Your task to perform on an android device: turn on showing notifications on the lock screen Image 0: 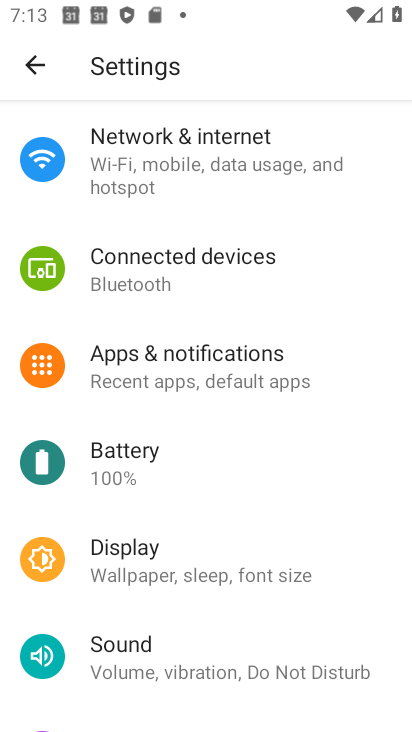
Step 0: press home button
Your task to perform on an android device: turn on showing notifications on the lock screen Image 1: 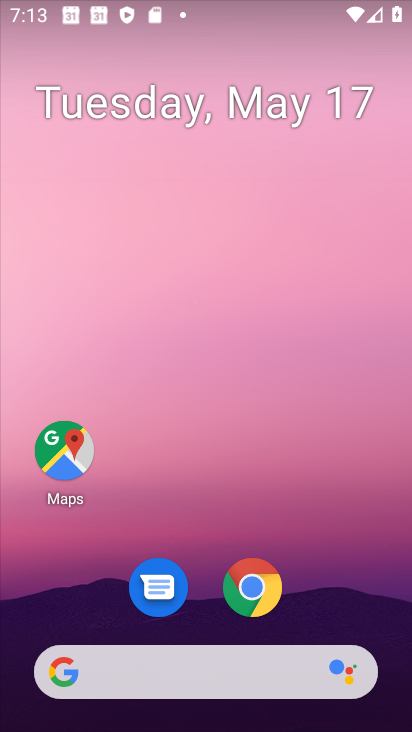
Step 1: drag from (220, 711) to (218, 348)
Your task to perform on an android device: turn on showing notifications on the lock screen Image 2: 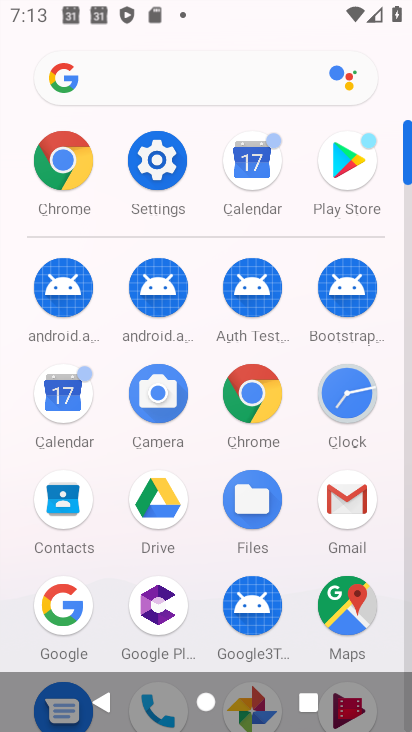
Step 2: click (143, 163)
Your task to perform on an android device: turn on showing notifications on the lock screen Image 3: 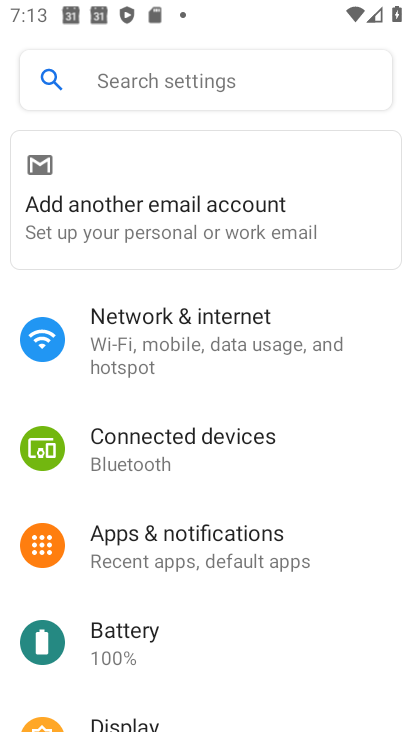
Step 3: click (129, 79)
Your task to perform on an android device: turn on showing notifications on the lock screen Image 4: 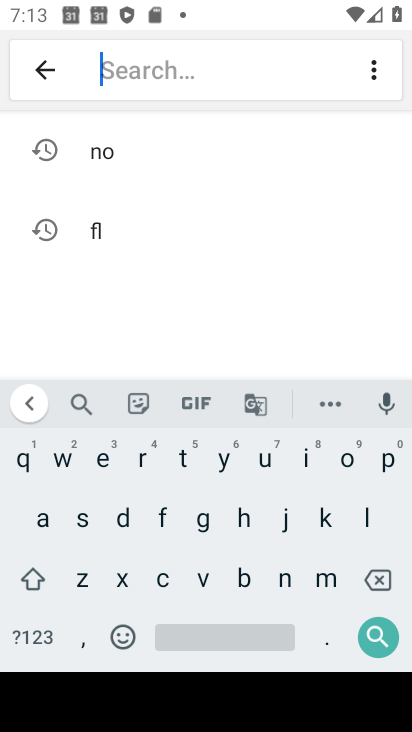
Step 4: click (281, 578)
Your task to perform on an android device: turn on showing notifications on the lock screen Image 5: 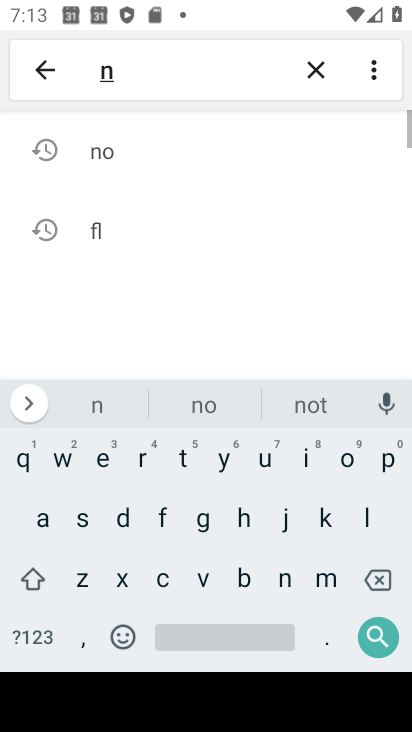
Step 5: click (341, 462)
Your task to perform on an android device: turn on showing notifications on the lock screen Image 6: 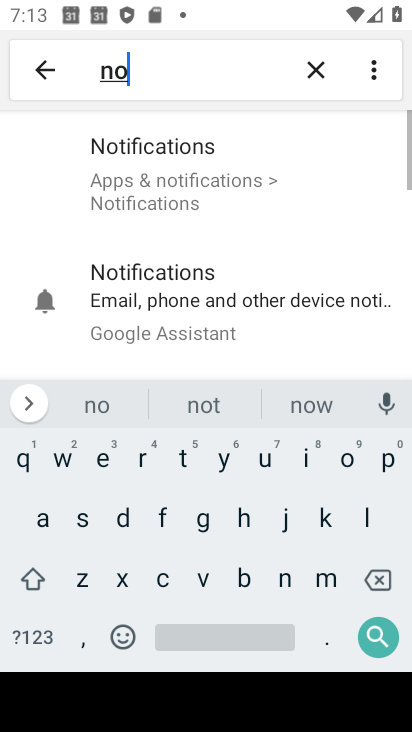
Step 6: click (156, 181)
Your task to perform on an android device: turn on showing notifications on the lock screen Image 7: 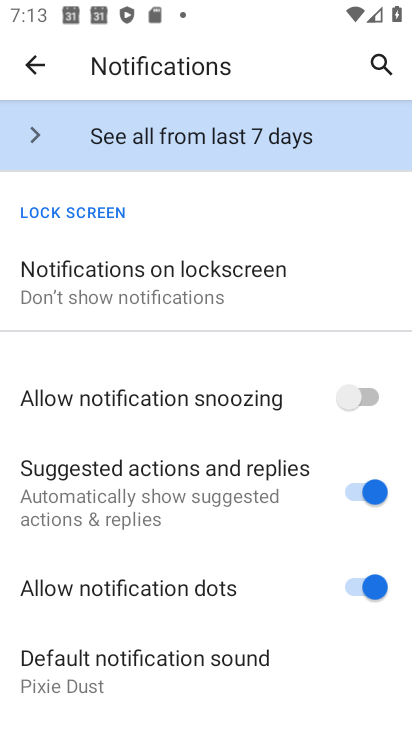
Step 7: click (134, 303)
Your task to perform on an android device: turn on showing notifications on the lock screen Image 8: 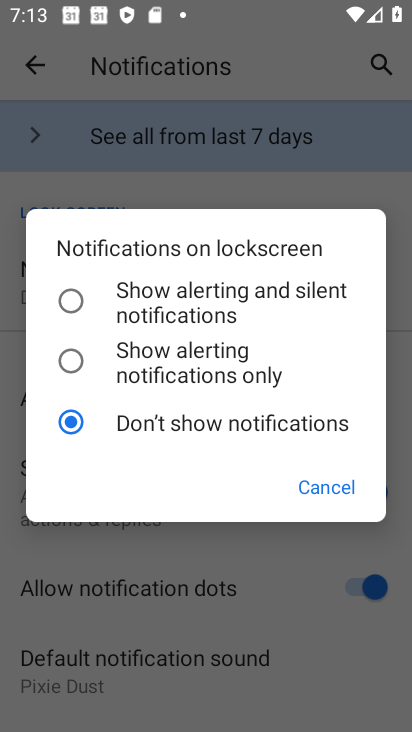
Step 8: click (176, 296)
Your task to perform on an android device: turn on showing notifications on the lock screen Image 9: 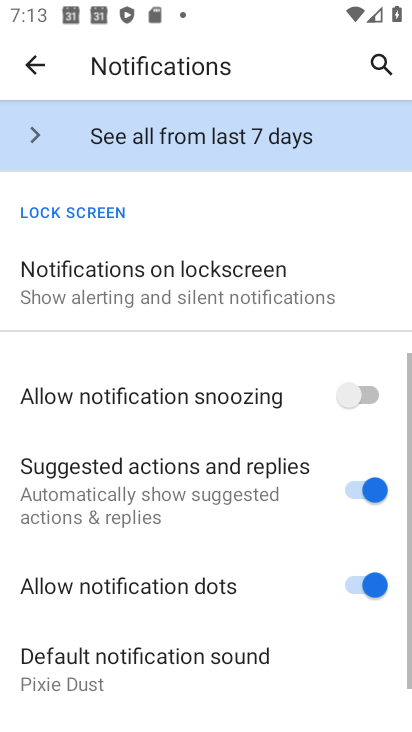
Step 9: task complete